Your task to perform on an android device: Turn on the flashlight Image 0: 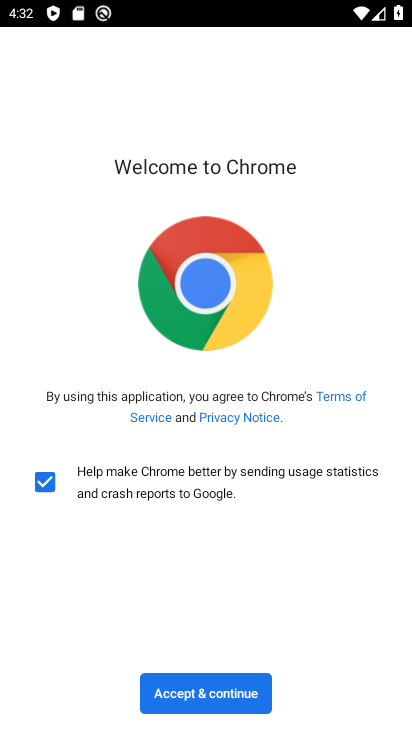
Step 0: drag from (242, 630) to (243, 31)
Your task to perform on an android device: Turn on the flashlight Image 1: 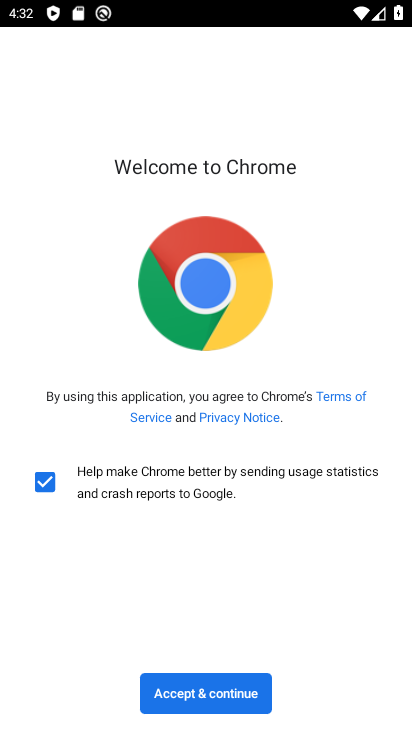
Step 1: press back button
Your task to perform on an android device: Turn on the flashlight Image 2: 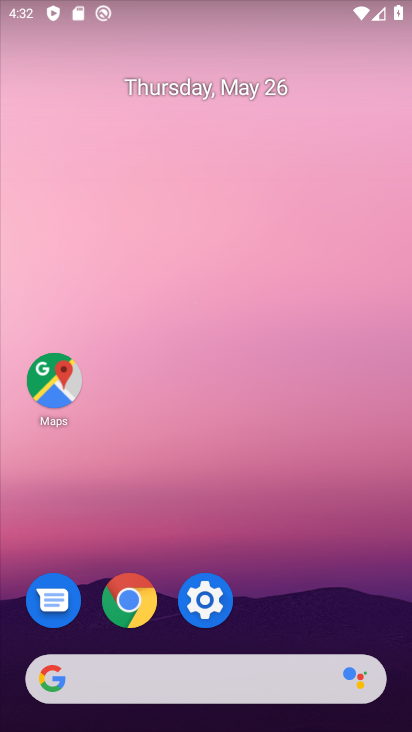
Step 2: drag from (241, 392) to (133, 5)
Your task to perform on an android device: Turn on the flashlight Image 3: 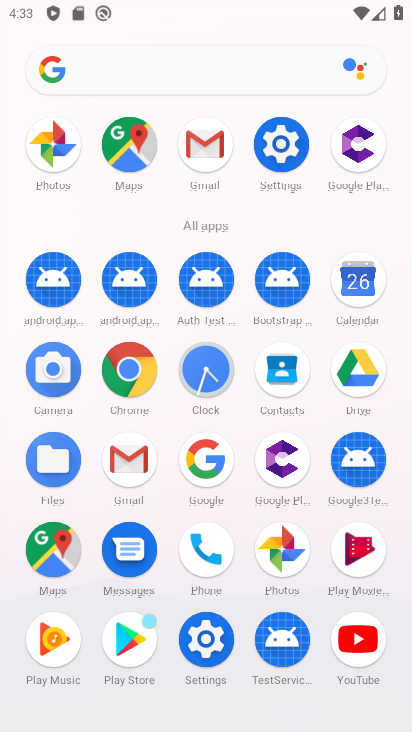
Step 3: click (245, 109)
Your task to perform on an android device: Turn on the flashlight Image 4: 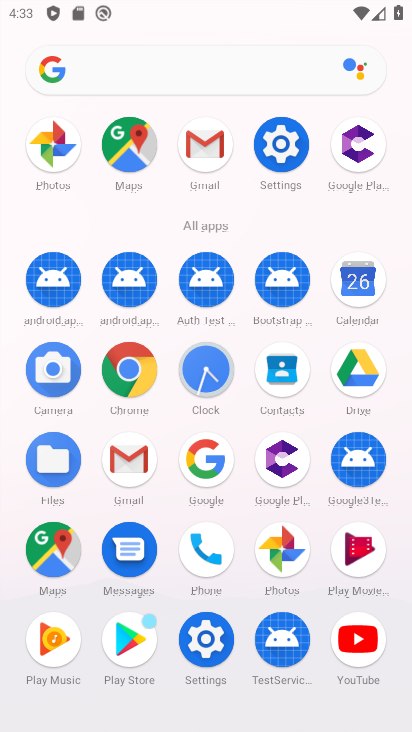
Step 4: click (204, 29)
Your task to perform on an android device: Turn on the flashlight Image 5: 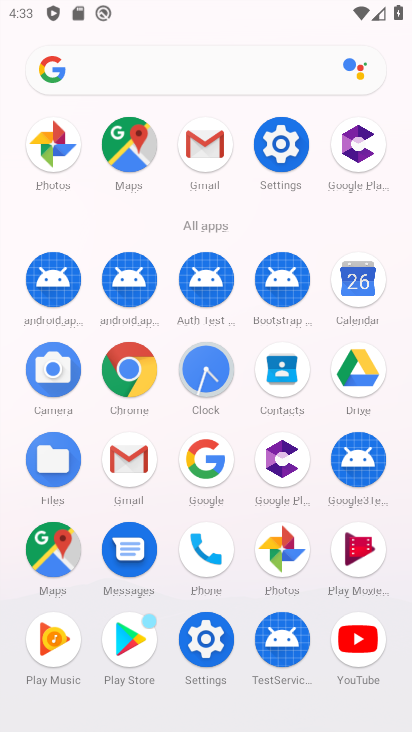
Step 5: task complete